Your task to perform on an android device: Open ESPN.com Image 0: 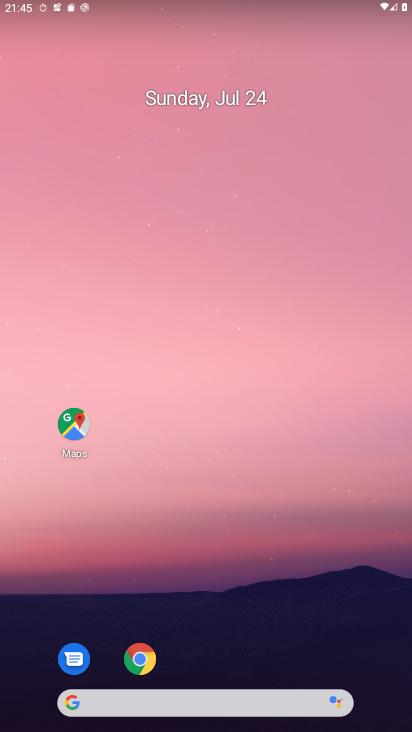
Step 0: click (142, 660)
Your task to perform on an android device: Open ESPN.com Image 1: 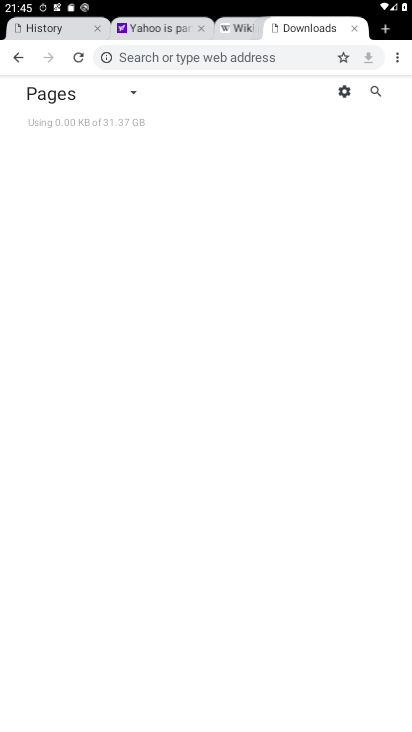
Step 1: click (397, 62)
Your task to perform on an android device: Open ESPN.com Image 2: 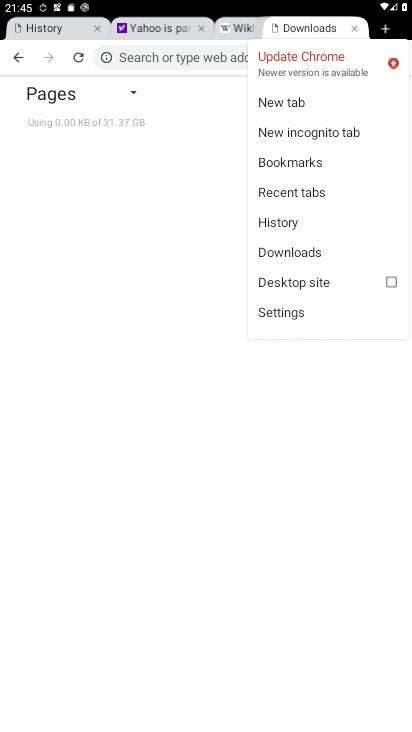
Step 2: click (278, 102)
Your task to perform on an android device: Open ESPN.com Image 3: 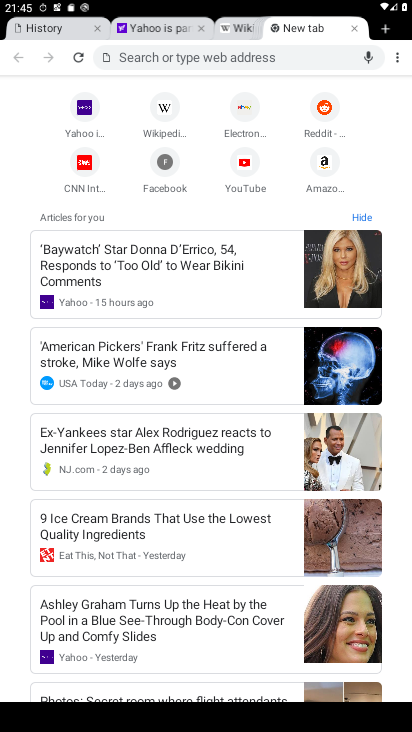
Step 3: type "ESPN.com"
Your task to perform on an android device: Open ESPN.com Image 4: 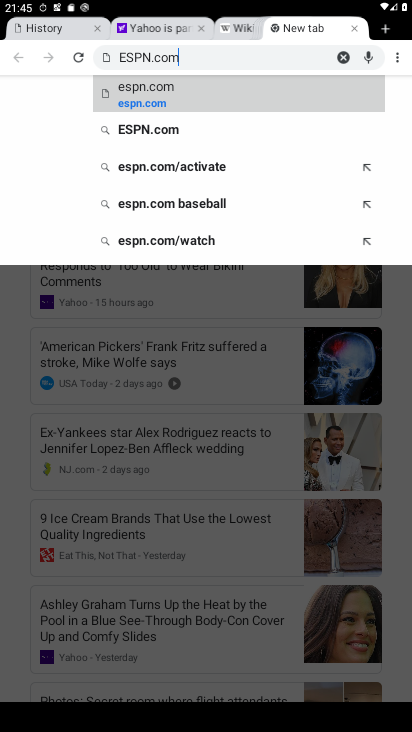
Step 4: click (149, 87)
Your task to perform on an android device: Open ESPN.com Image 5: 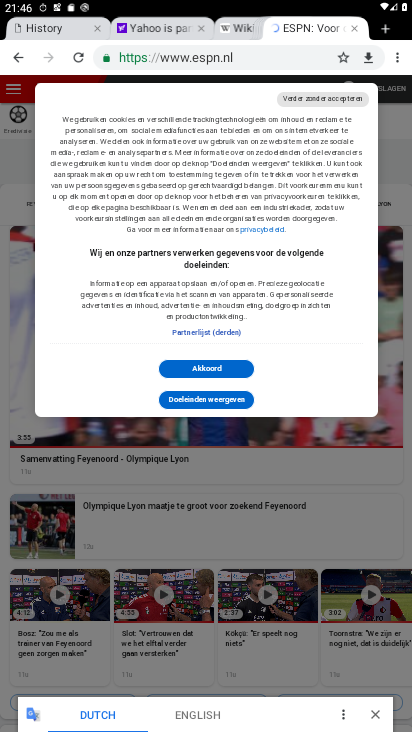
Step 5: click (197, 364)
Your task to perform on an android device: Open ESPN.com Image 6: 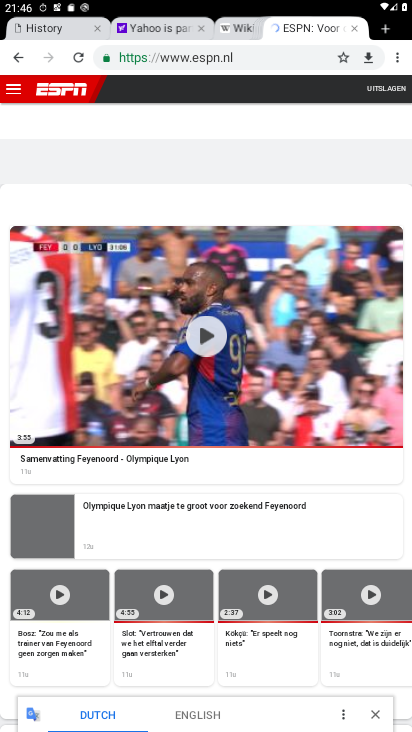
Step 6: task complete